Your task to perform on an android device: Go to Reddit.com Image 0: 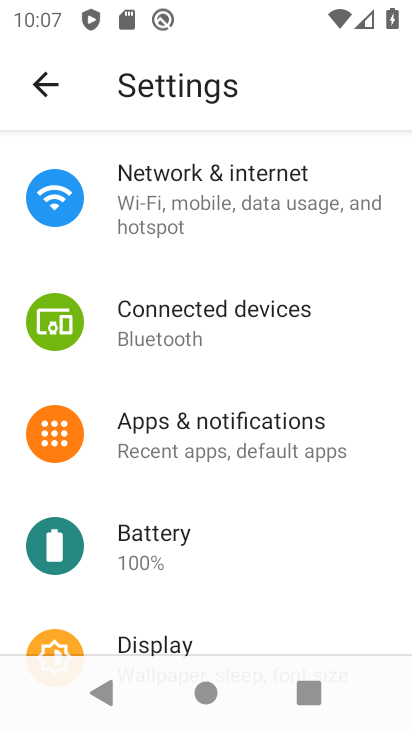
Step 0: press home button
Your task to perform on an android device: Go to Reddit.com Image 1: 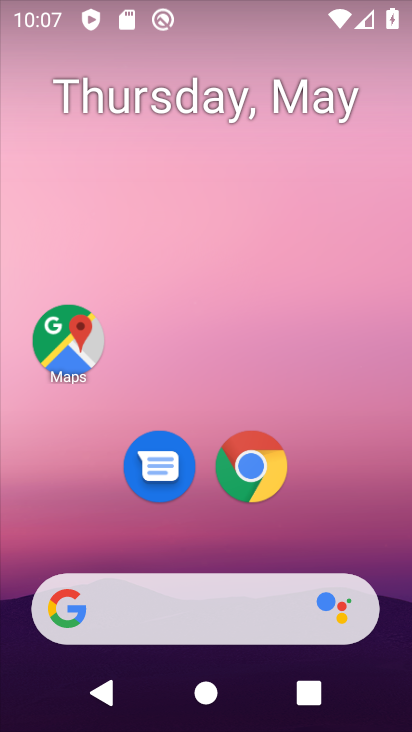
Step 1: drag from (322, 497) to (268, 82)
Your task to perform on an android device: Go to Reddit.com Image 2: 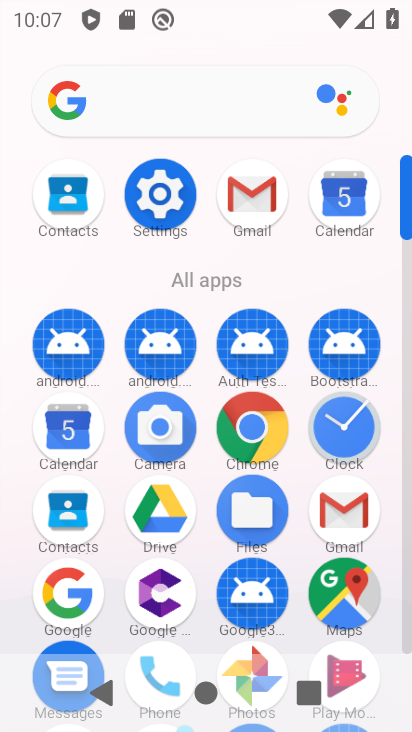
Step 2: click (257, 428)
Your task to perform on an android device: Go to Reddit.com Image 3: 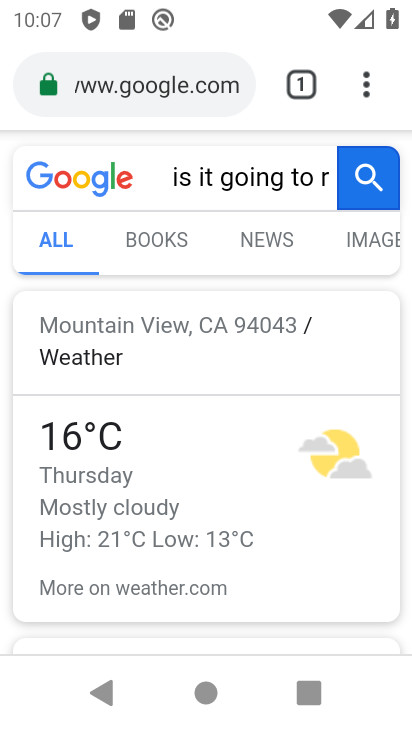
Step 3: click (221, 98)
Your task to perform on an android device: Go to Reddit.com Image 4: 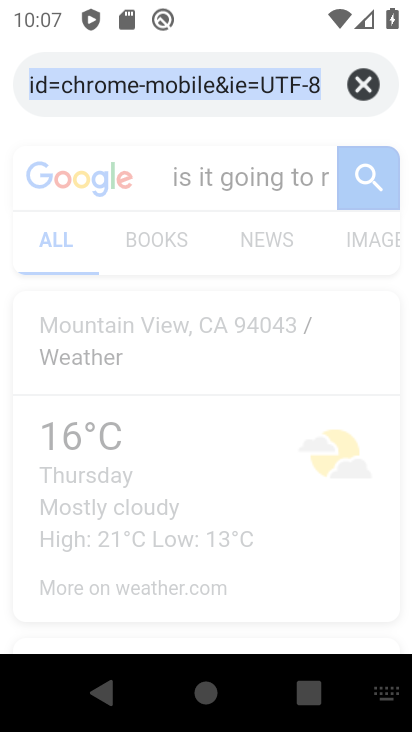
Step 4: type "reddit.com"
Your task to perform on an android device: Go to Reddit.com Image 5: 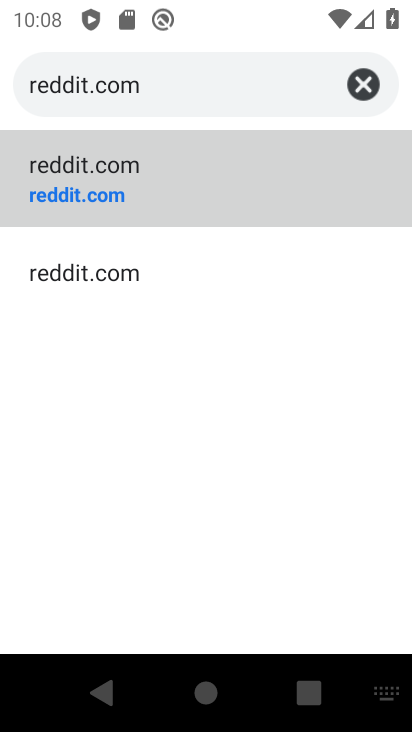
Step 5: click (114, 170)
Your task to perform on an android device: Go to Reddit.com Image 6: 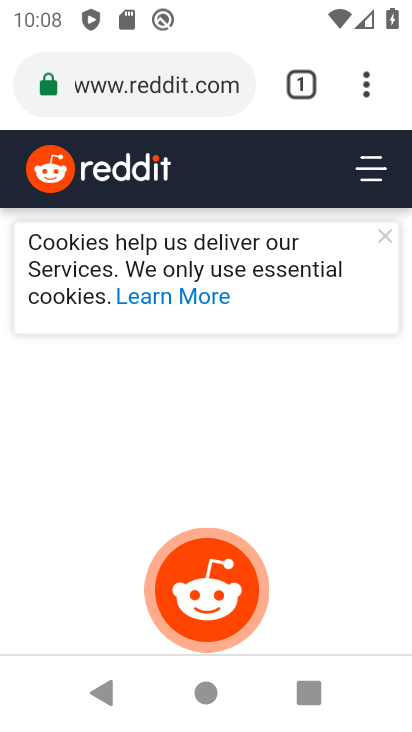
Step 6: task complete